Your task to perform on an android device: Open calendar and show me the first week of next month Image 0: 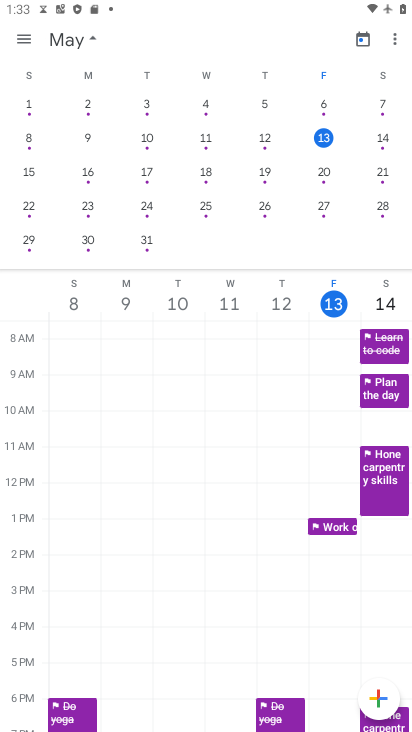
Step 0: press home button
Your task to perform on an android device: Open calendar and show me the first week of next month Image 1: 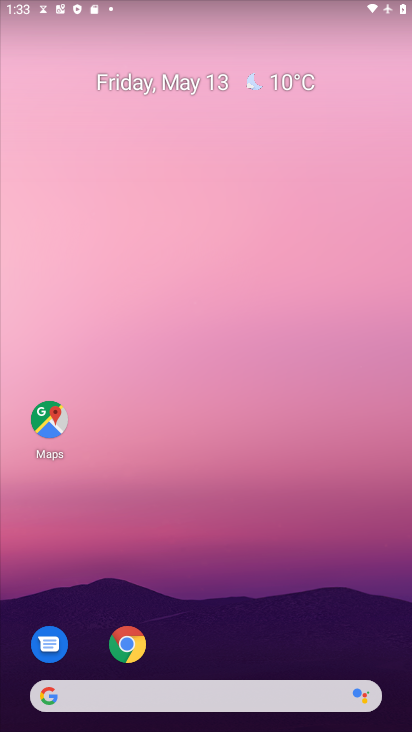
Step 1: drag from (219, 729) to (214, 206)
Your task to perform on an android device: Open calendar and show me the first week of next month Image 2: 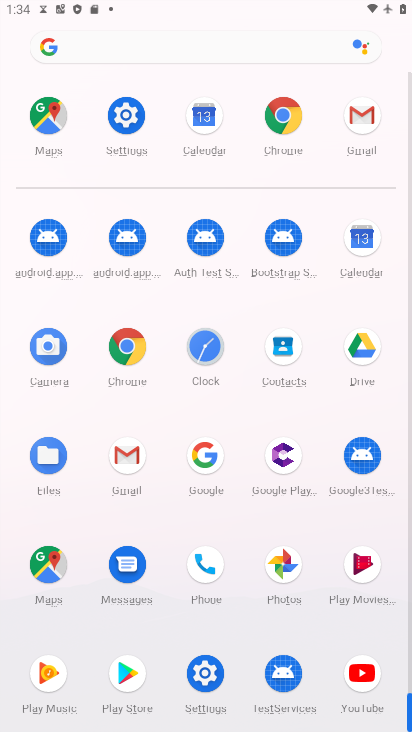
Step 2: click (362, 243)
Your task to perform on an android device: Open calendar and show me the first week of next month Image 3: 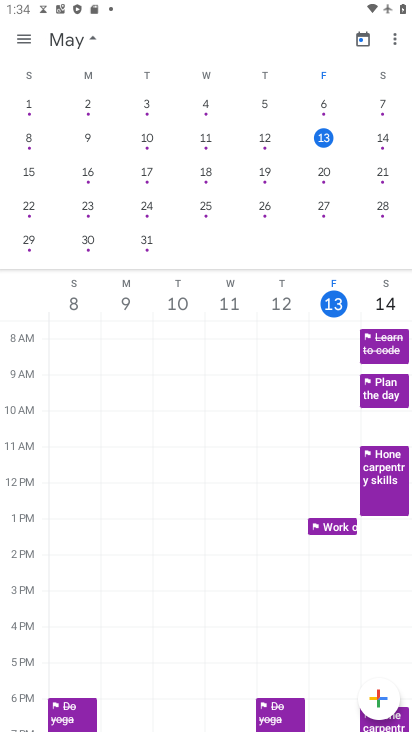
Step 3: drag from (373, 181) to (51, 223)
Your task to perform on an android device: Open calendar and show me the first week of next month Image 4: 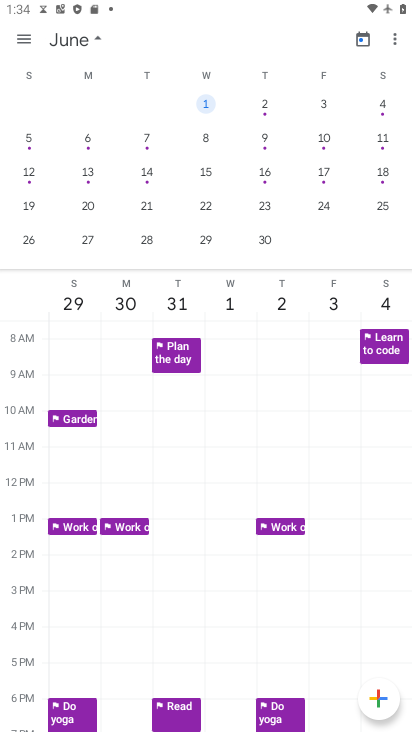
Step 4: click (77, 135)
Your task to perform on an android device: Open calendar and show me the first week of next month Image 5: 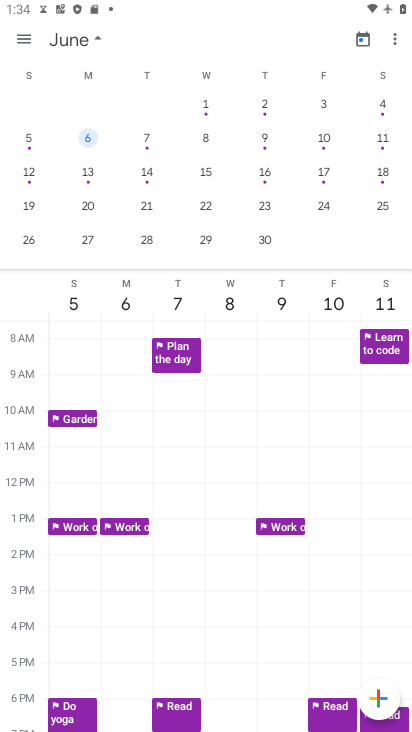
Step 5: task complete